Your task to perform on an android device: set default search engine in the chrome app Image 0: 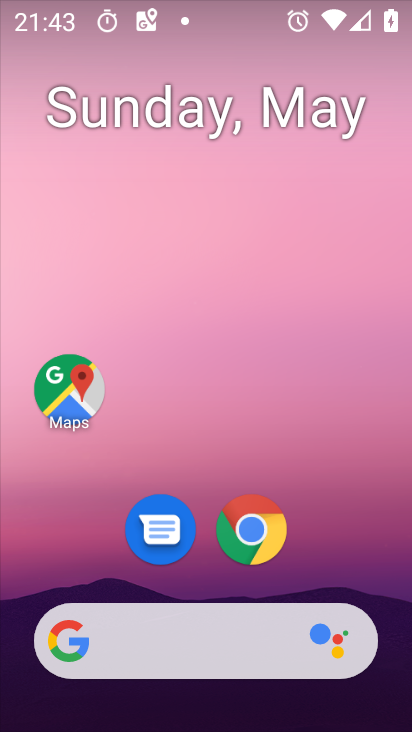
Step 0: click (262, 528)
Your task to perform on an android device: set default search engine in the chrome app Image 1: 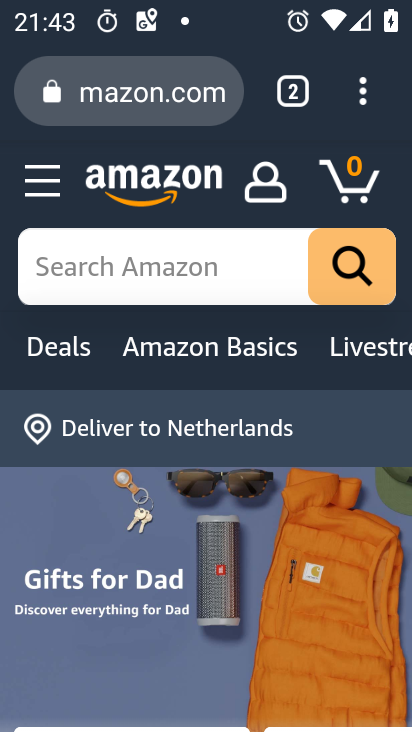
Step 1: click (360, 92)
Your task to perform on an android device: set default search engine in the chrome app Image 2: 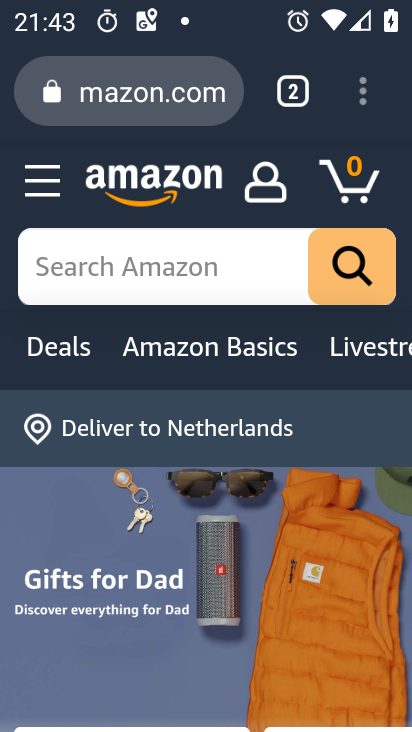
Step 2: click (360, 92)
Your task to perform on an android device: set default search engine in the chrome app Image 3: 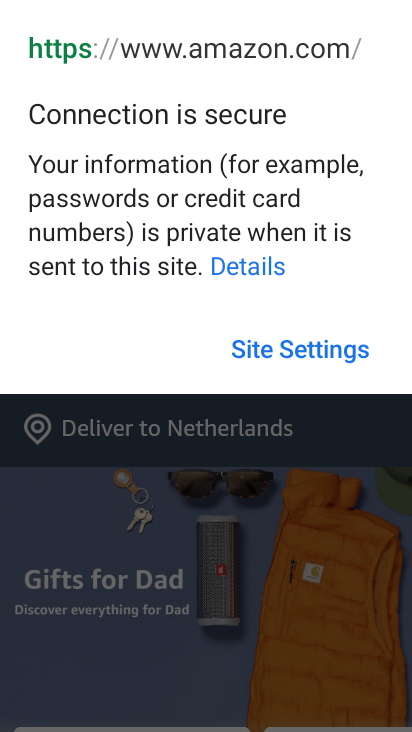
Step 3: click (373, 415)
Your task to perform on an android device: set default search engine in the chrome app Image 4: 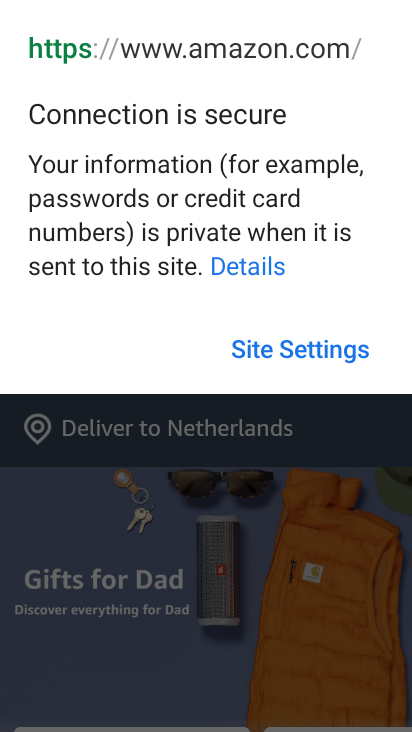
Step 4: click (364, 421)
Your task to perform on an android device: set default search engine in the chrome app Image 5: 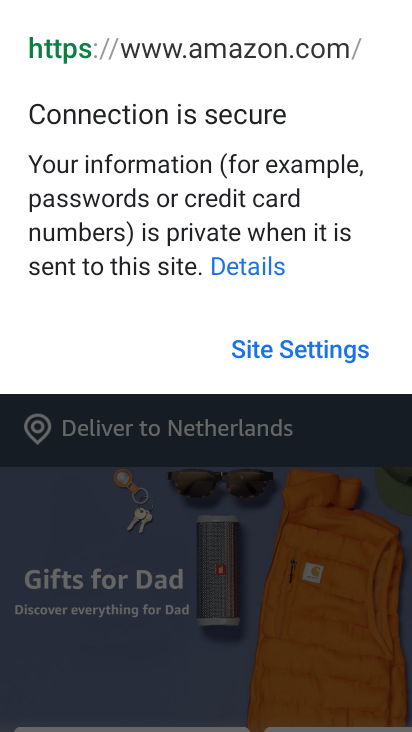
Step 5: drag from (366, 430) to (375, 74)
Your task to perform on an android device: set default search engine in the chrome app Image 6: 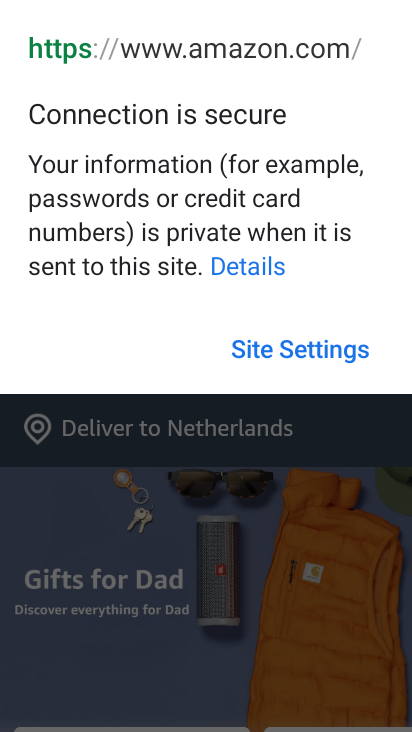
Step 6: drag from (178, 363) to (193, 12)
Your task to perform on an android device: set default search engine in the chrome app Image 7: 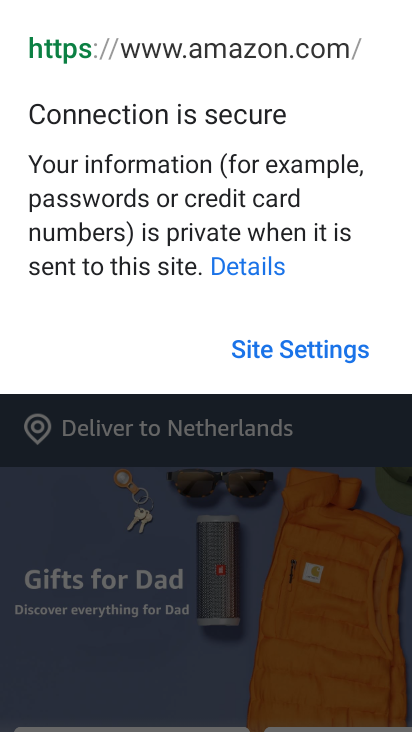
Step 7: click (351, 422)
Your task to perform on an android device: set default search engine in the chrome app Image 8: 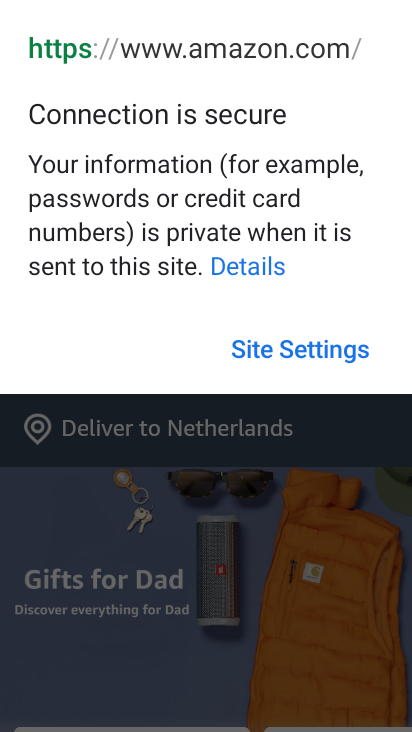
Step 8: click (319, 444)
Your task to perform on an android device: set default search engine in the chrome app Image 9: 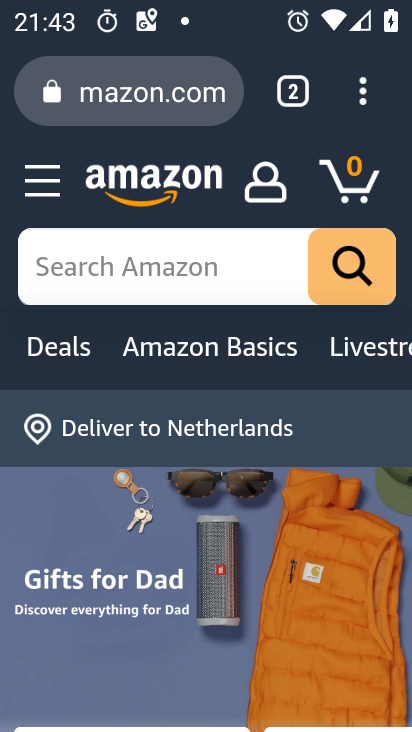
Step 9: click (360, 91)
Your task to perform on an android device: set default search engine in the chrome app Image 10: 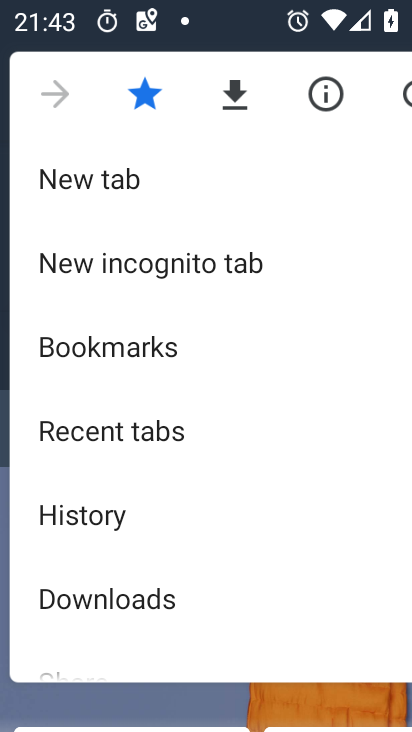
Step 10: drag from (213, 511) to (198, 154)
Your task to perform on an android device: set default search engine in the chrome app Image 11: 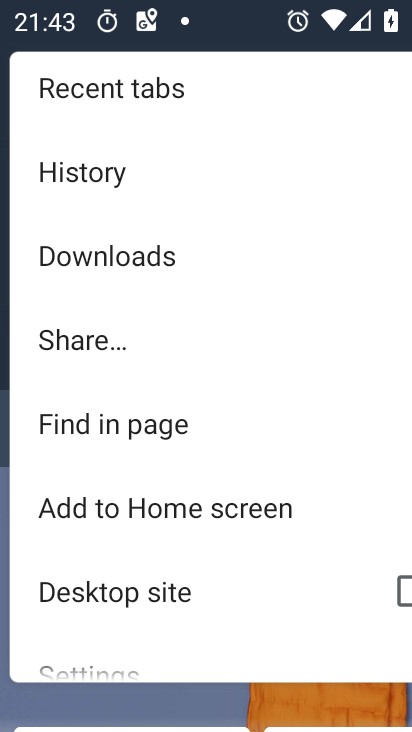
Step 11: drag from (157, 544) to (154, 114)
Your task to perform on an android device: set default search engine in the chrome app Image 12: 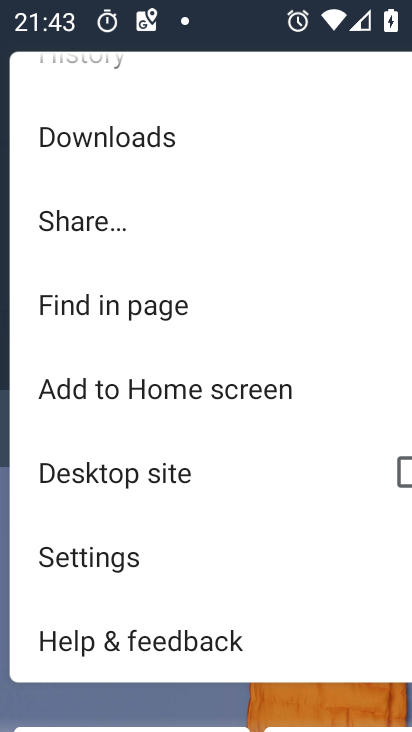
Step 12: click (89, 562)
Your task to perform on an android device: set default search engine in the chrome app Image 13: 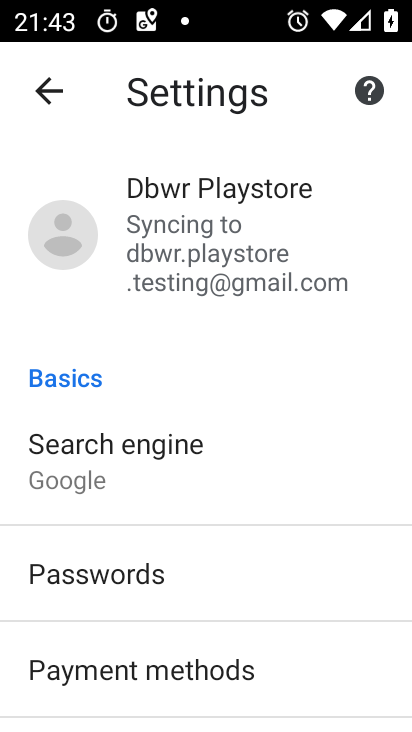
Step 13: click (80, 446)
Your task to perform on an android device: set default search engine in the chrome app Image 14: 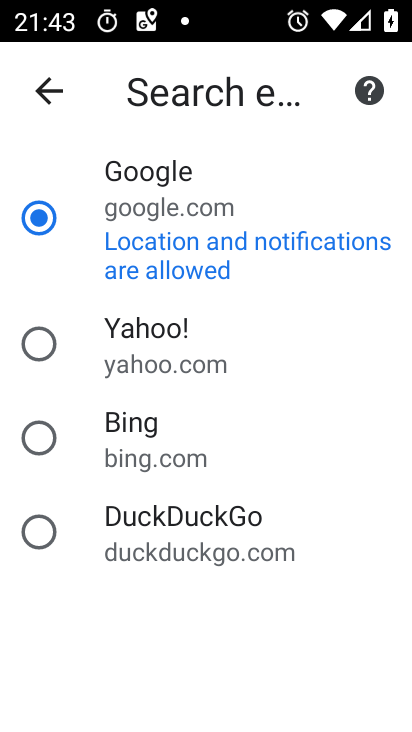
Step 14: click (39, 360)
Your task to perform on an android device: set default search engine in the chrome app Image 15: 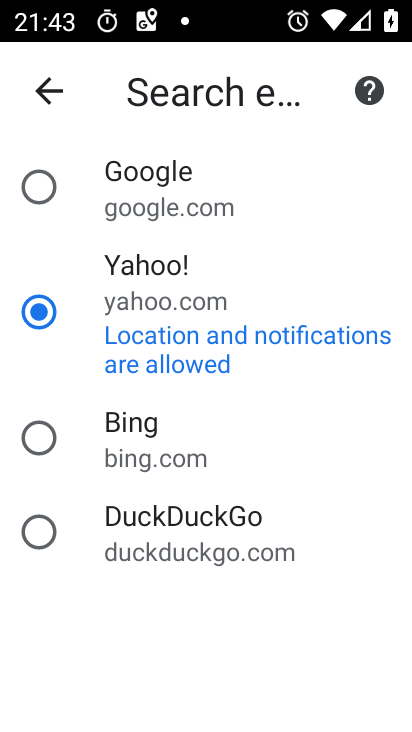
Step 15: task complete